Your task to perform on an android device: Open Android settings Image 0: 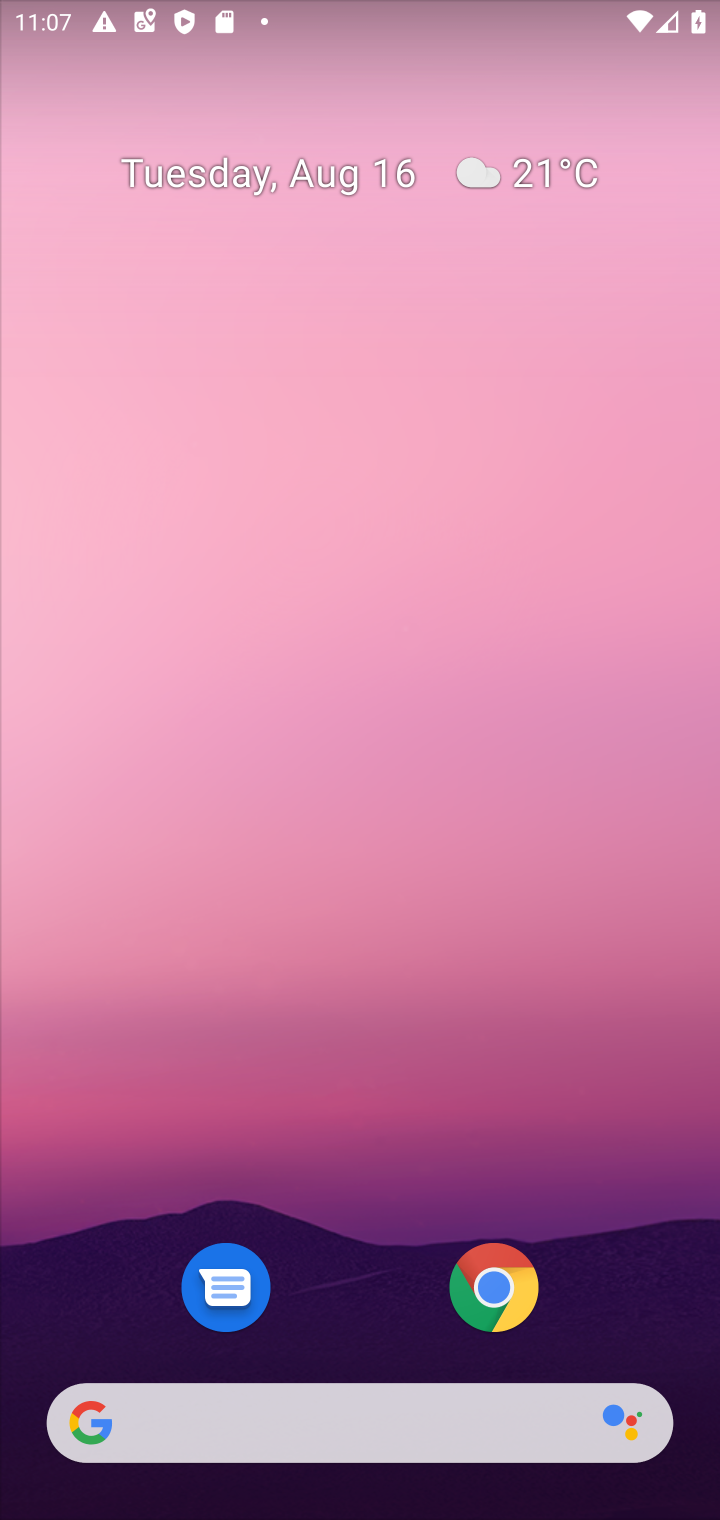
Step 0: drag from (644, 1267) to (619, 305)
Your task to perform on an android device: Open Android settings Image 1: 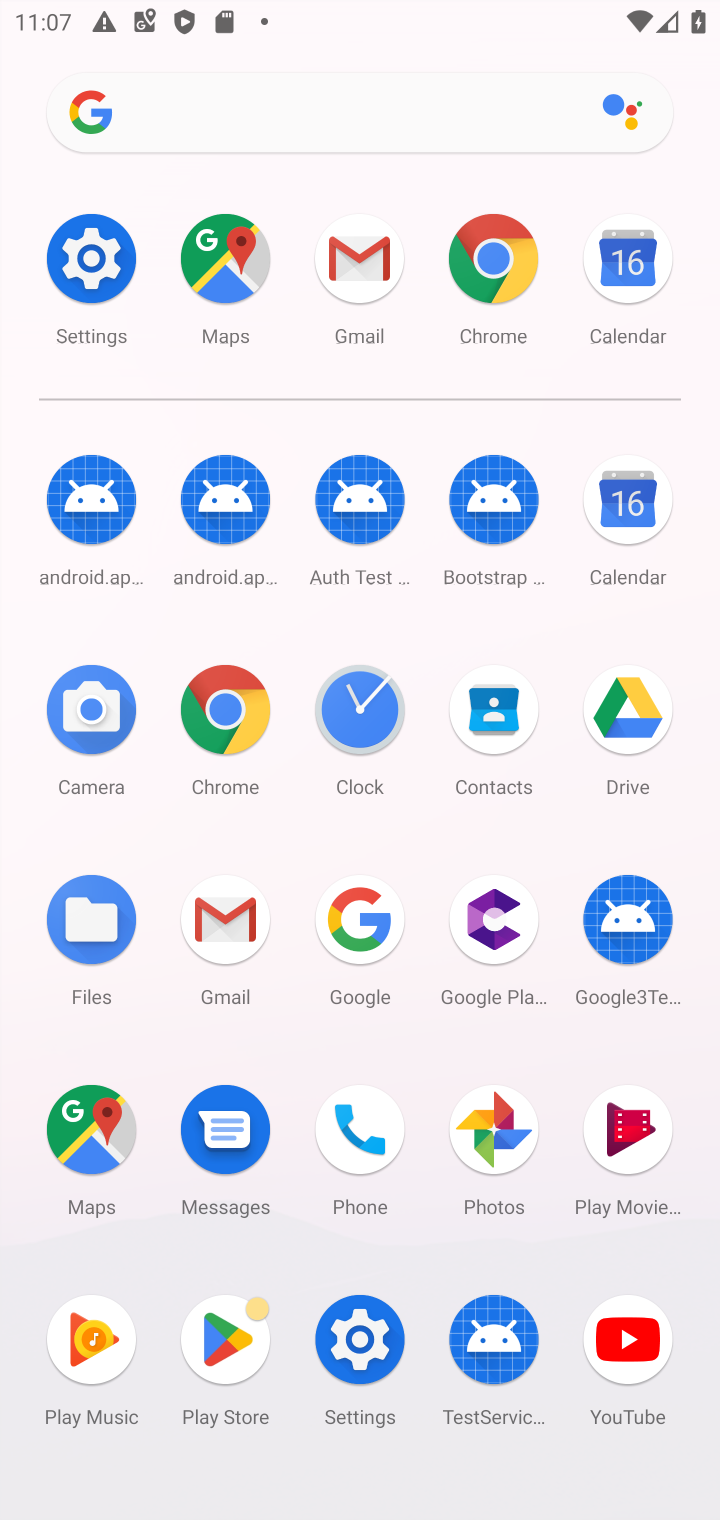
Step 1: click (359, 1335)
Your task to perform on an android device: Open Android settings Image 2: 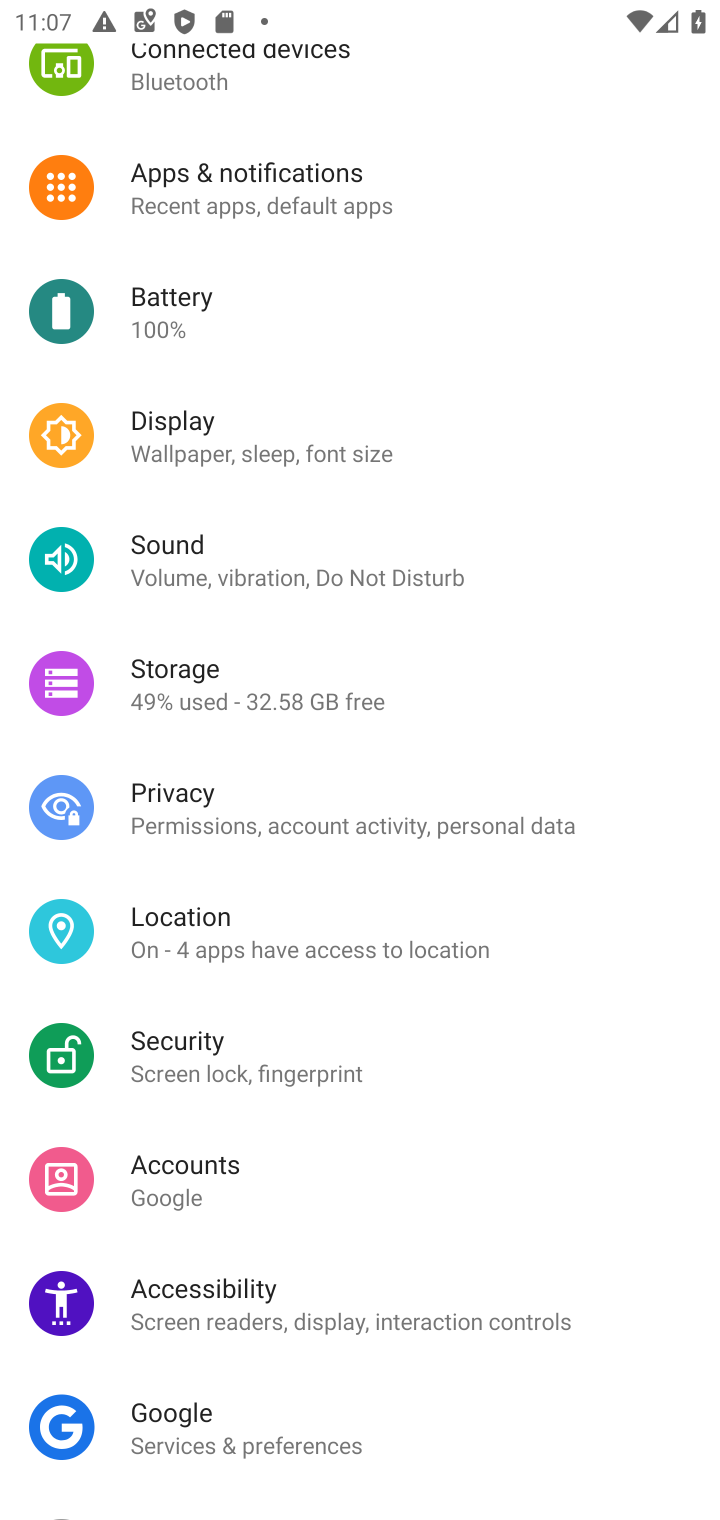
Step 2: drag from (554, 1338) to (572, 423)
Your task to perform on an android device: Open Android settings Image 3: 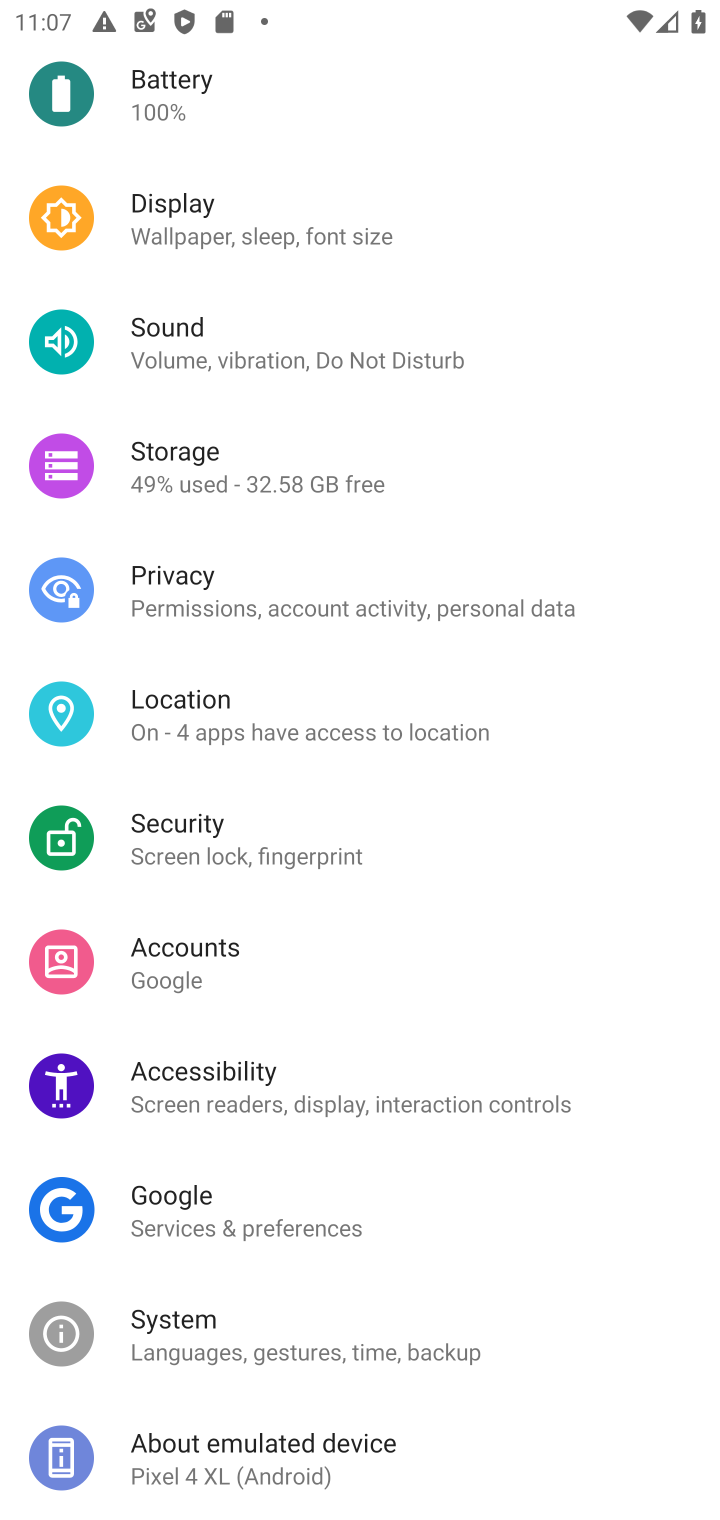
Step 3: click (233, 1435)
Your task to perform on an android device: Open Android settings Image 4: 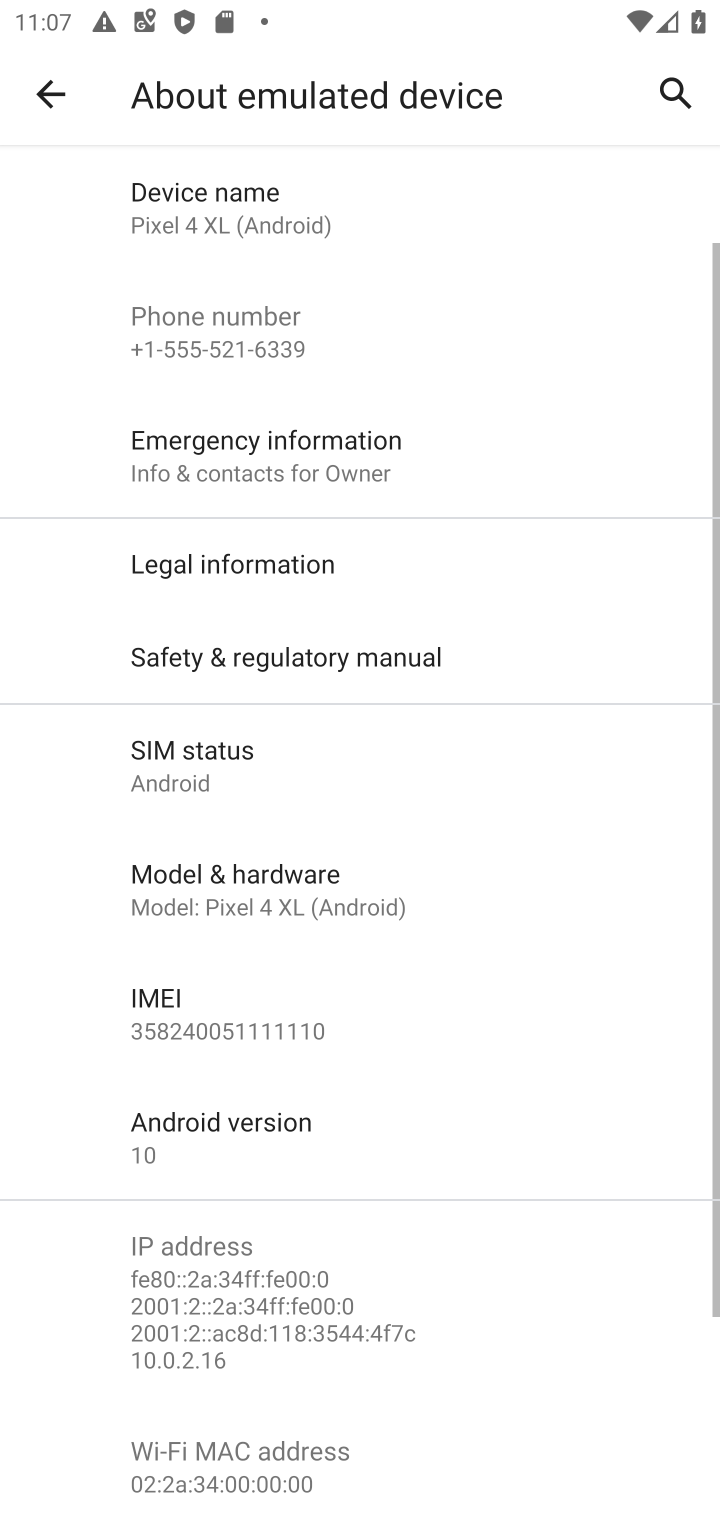
Step 4: task complete